Your task to perform on an android device: toggle sleep mode Image 0: 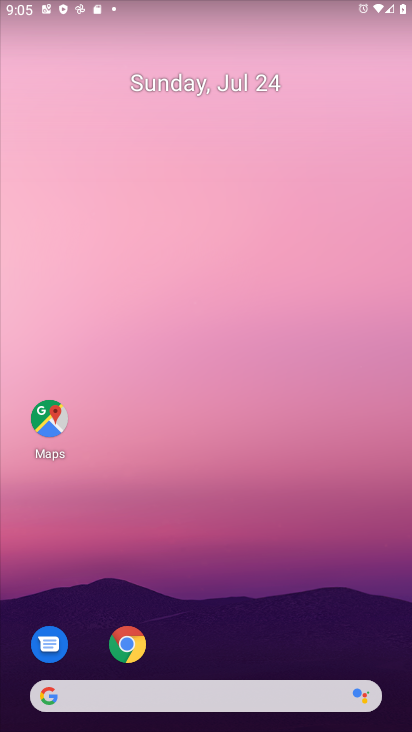
Step 0: drag from (292, 672) to (205, 86)
Your task to perform on an android device: toggle sleep mode Image 1: 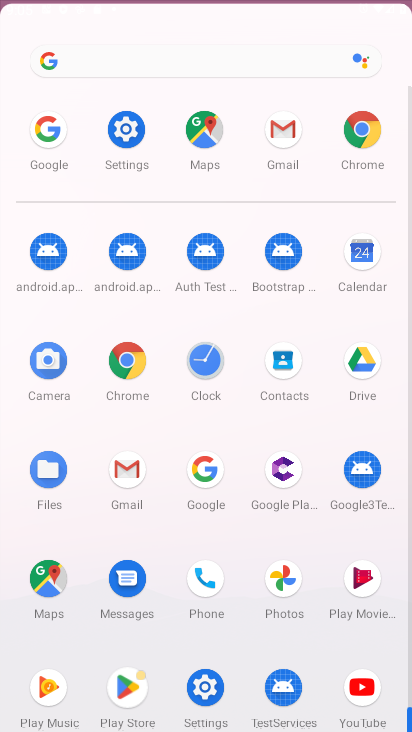
Step 1: drag from (239, 105) to (252, 215)
Your task to perform on an android device: toggle sleep mode Image 2: 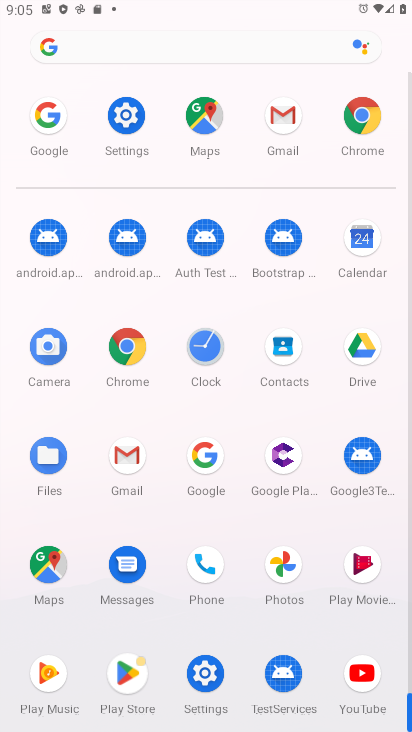
Step 2: click (113, 129)
Your task to perform on an android device: toggle sleep mode Image 3: 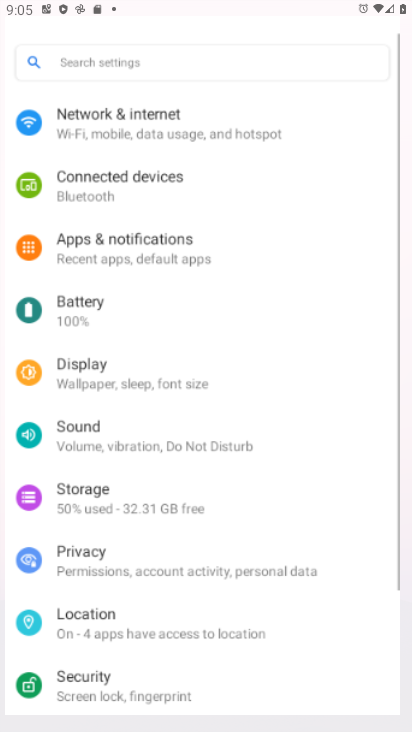
Step 3: click (115, 128)
Your task to perform on an android device: toggle sleep mode Image 4: 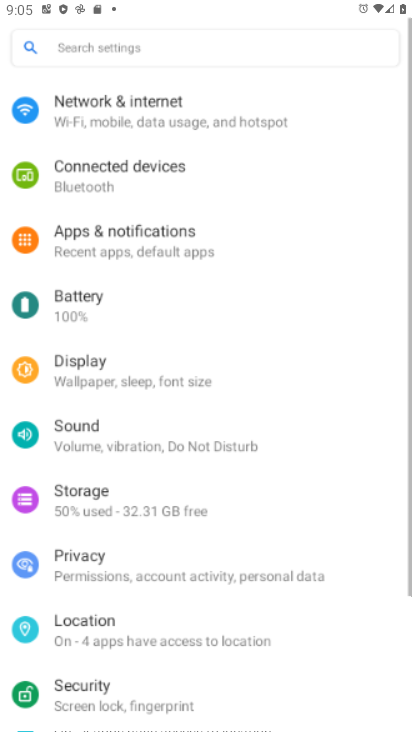
Step 4: click (118, 130)
Your task to perform on an android device: toggle sleep mode Image 5: 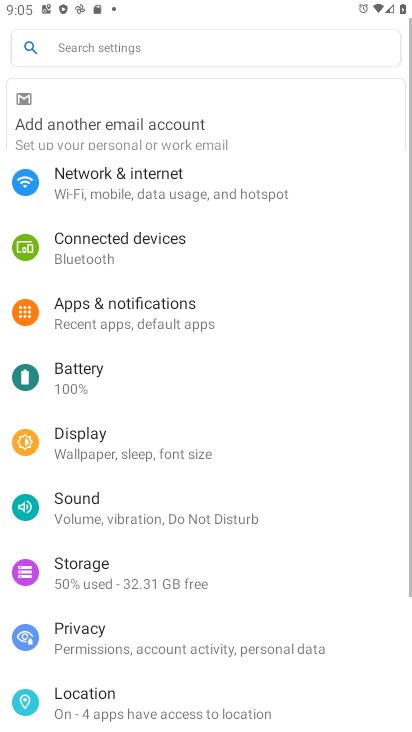
Step 5: click (119, 131)
Your task to perform on an android device: toggle sleep mode Image 6: 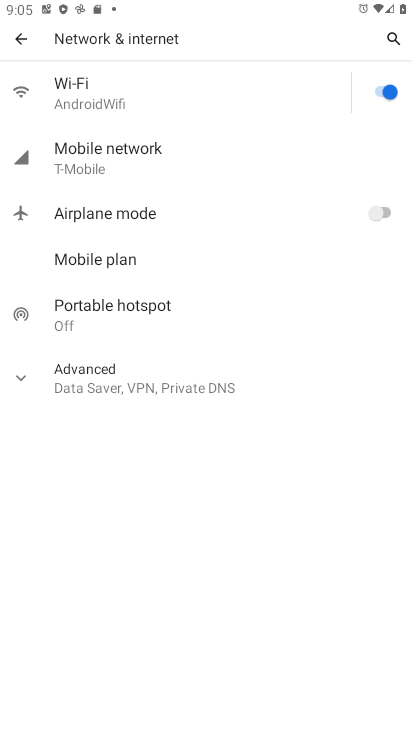
Step 6: click (25, 44)
Your task to perform on an android device: toggle sleep mode Image 7: 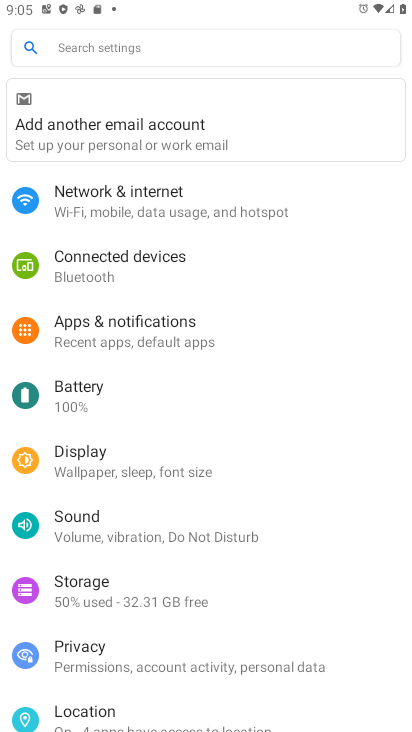
Step 7: click (77, 470)
Your task to perform on an android device: toggle sleep mode Image 8: 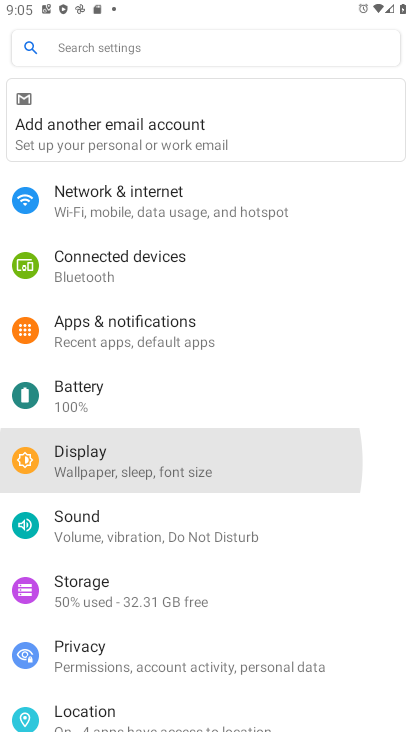
Step 8: click (79, 467)
Your task to perform on an android device: toggle sleep mode Image 9: 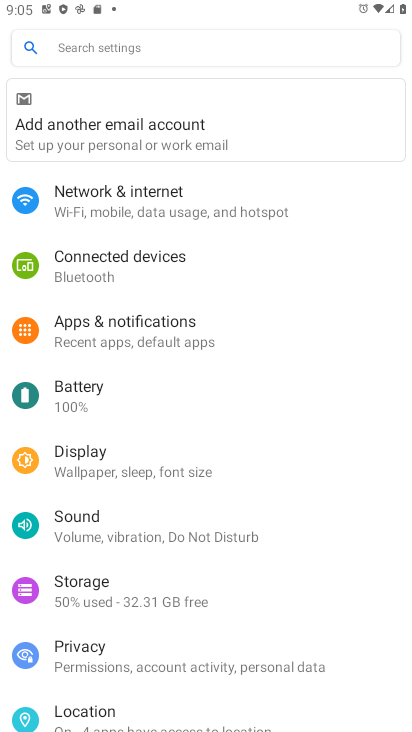
Step 9: click (88, 463)
Your task to perform on an android device: toggle sleep mode Image 10: 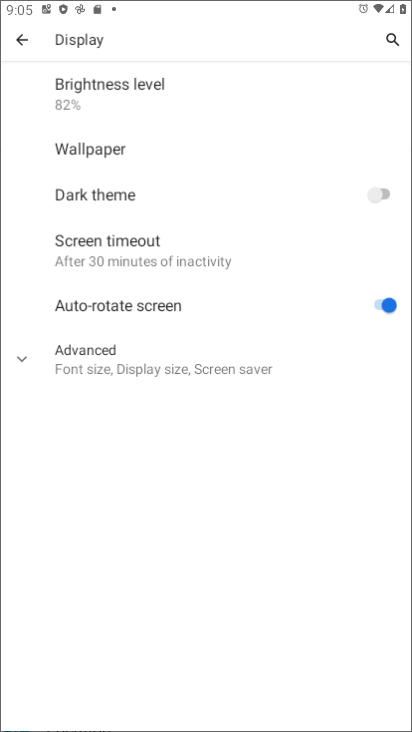
Step 10: click (100, 468)
Your task to perform on an android device: toggle sleep mode Image 11: 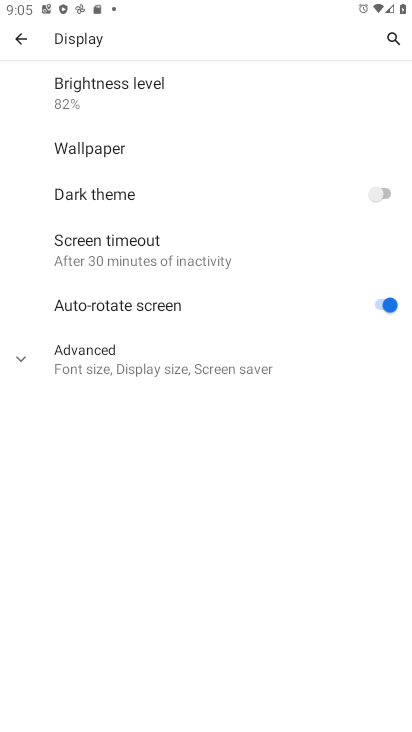
Step 11: click (100, 468)
Your task to perform on an android device: toggle sleep mode Image 12: 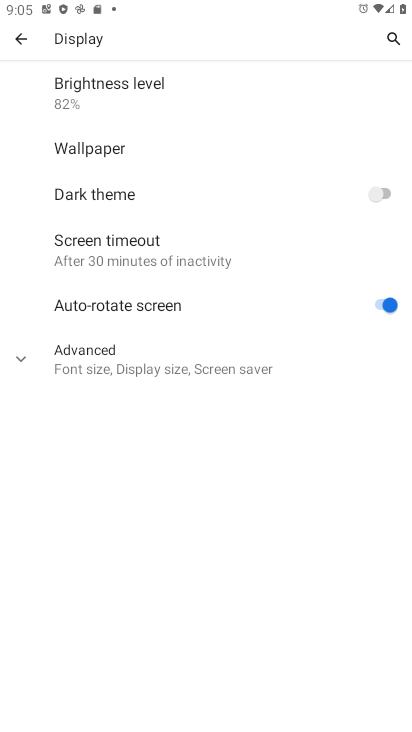
Step 12: click (112, 255)
Your task to perform on an android device: toggle sleep mode Image 13: 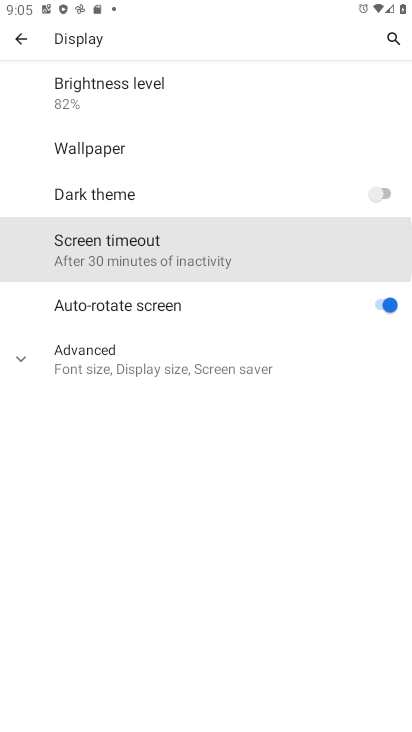
Step 13: click (114, 256)
Your task to perform on an android device: toggle sleep mode Image 14: 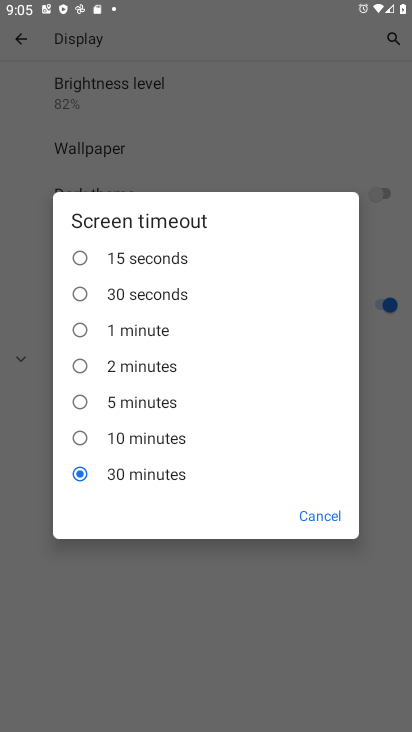
Step 14: click (116, 256)
Your task to perform on an android device: toggle sleep mode Image 15: 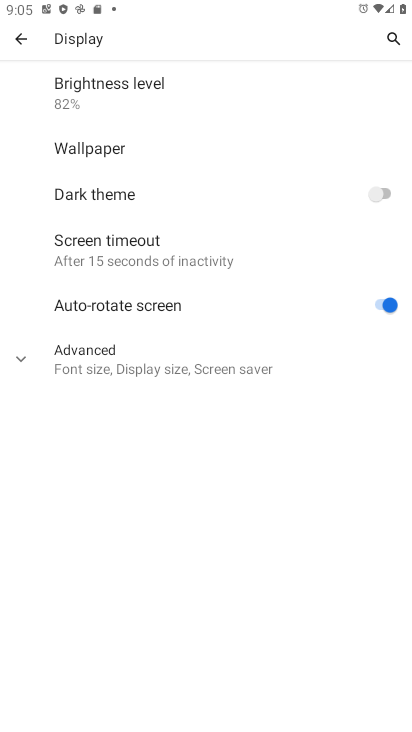
Step 15: click (102, 248)
Your task to perform on an android device: toggle sleep mode Image 16: 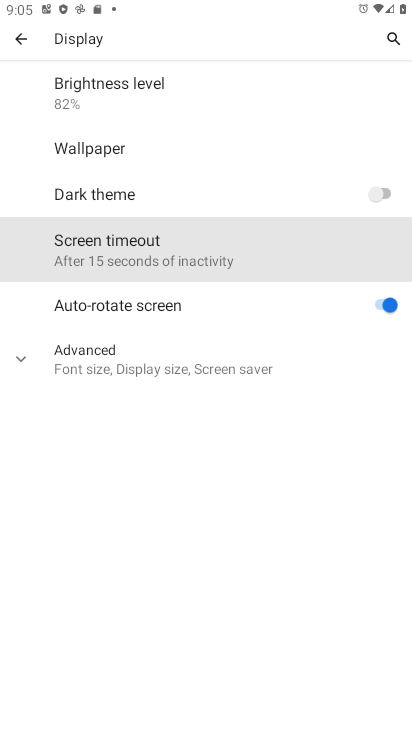
Step 16: click (110, 247)
Your task to perform on an android device: toggle sleep mode Image 17: 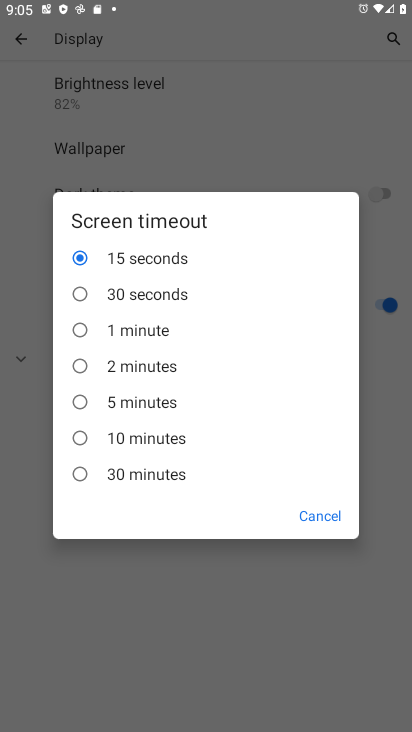
Step 17: click (113, 251)
Your task to perform on an android device: toggle sleep mode Image 18: 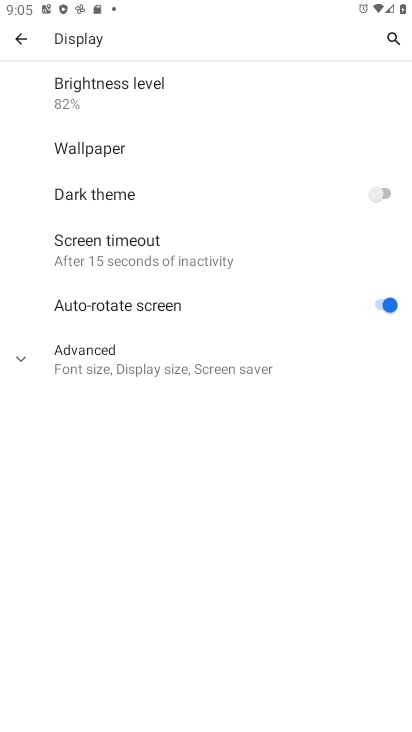
Step 18: click (77, 333)
Your task to perform on an android device: toggle sleep mode Image 19: 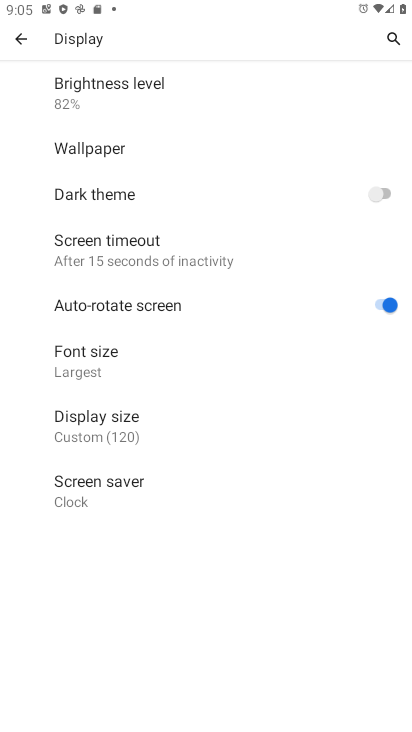
Step 19: task complete